Your task to perform on an android device: Open Youtube and go to "Your channel" Image 0: 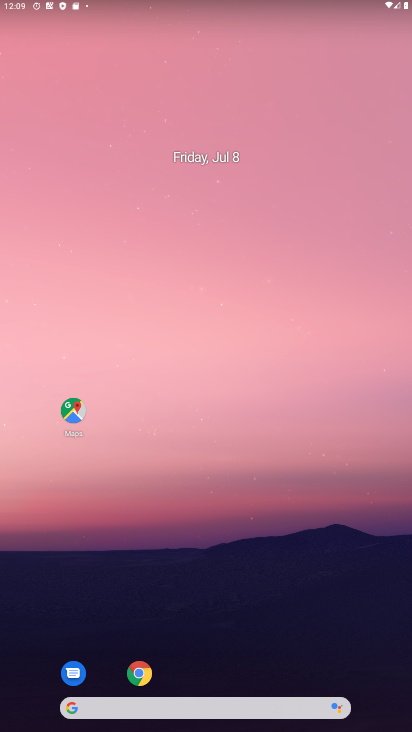
Step 0: drag from (263, 672) to (192, 126)
Your task to perform on an android device: Open Youtube and go to "Your channel" Image 1: 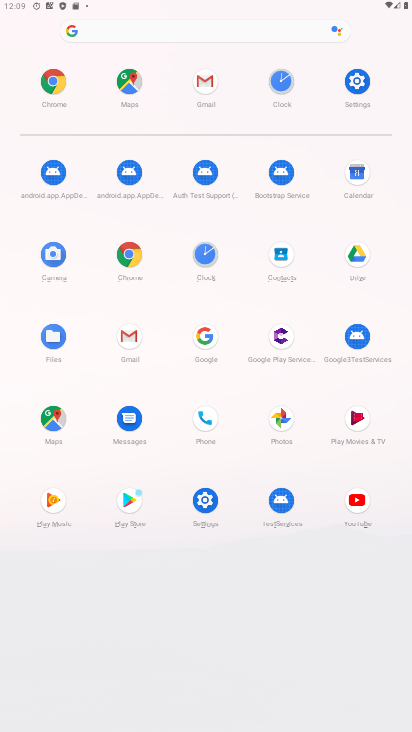
Step 1: click (355, 496)
Your task to perform on an android device: Open Youtube and go to "Your channel" Image 2: 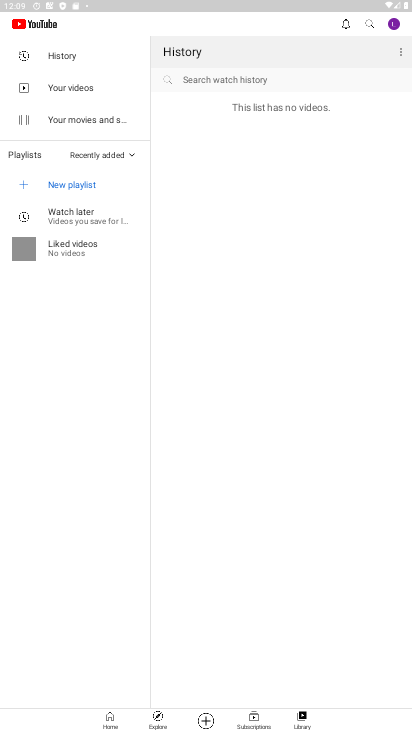
Step 2: click (393, 24)
Your task to perform on an android device: Open Youtube and go to "Your channel" Image 3: 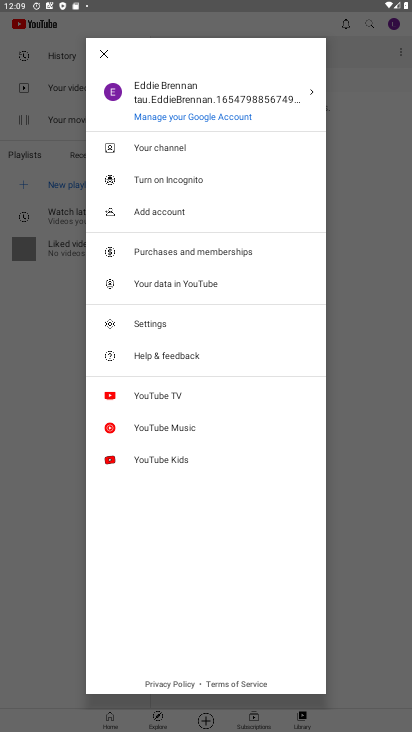
Step 3: click (176, 146)
Your task to perform on an android device: Open Youtube and go to "Your channel" Image 4: 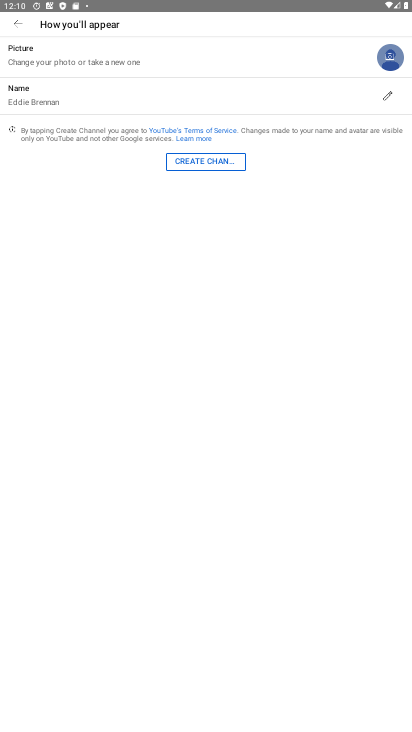
Step 4: task complete